Your task to perform on an android device: Go to network settings Image 0: 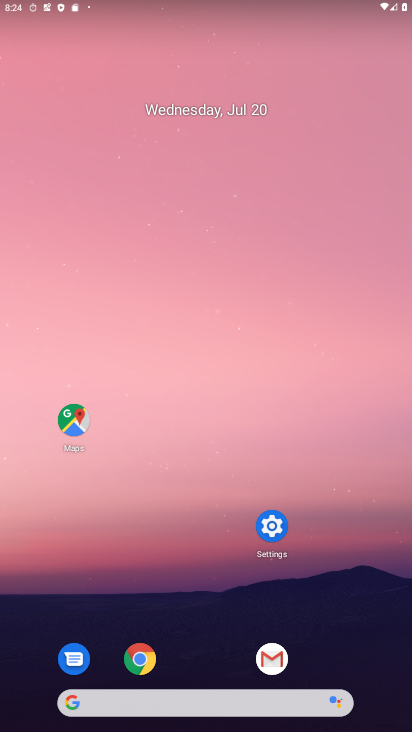
Step 0: click (272, 533)
Your task to perform on an android device: Go to network settings Image 1: 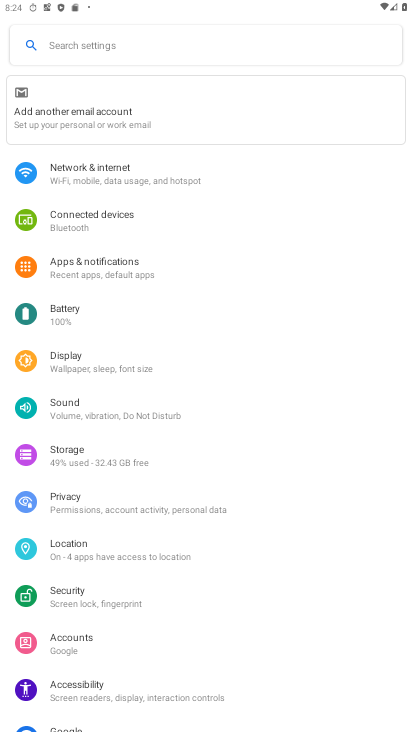
Step 1: click (128, 174)
Your task to perform on an android device: Go to network settings Image 2: 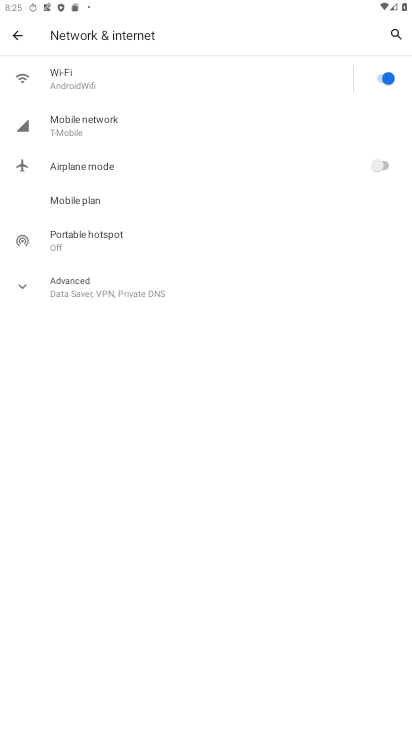
Step 2: task complete